Your task to perform on an android device: Show me popular games on the Play Store Image 0: 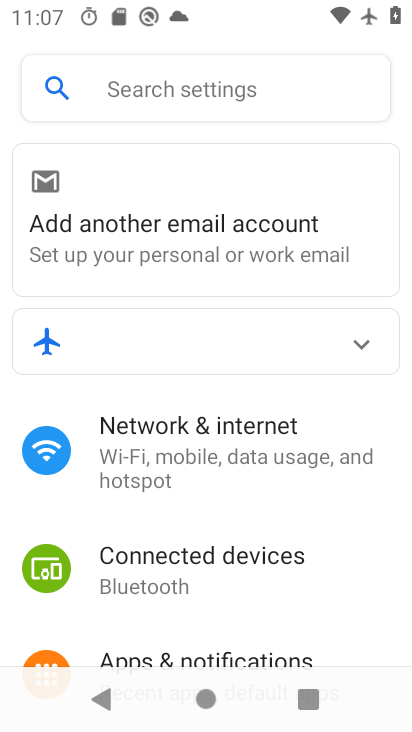
Step 0: press home button
Your task to perform on an android device: Show me popular games on the Play Store Image 1: 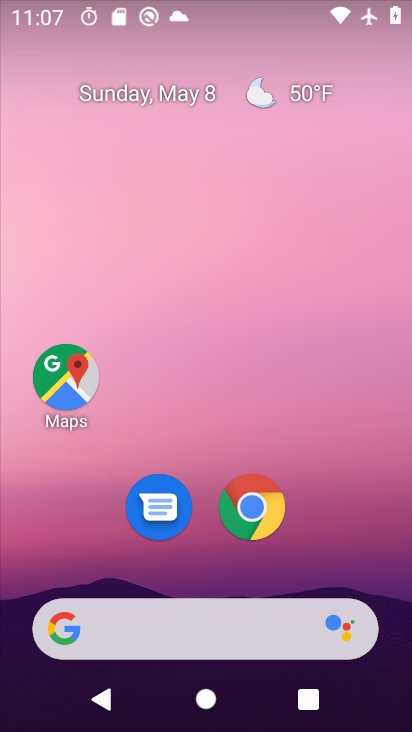
Step 1: drag from (229, 724) to (233, 196)
Your task to perform on an android device: Show me popular games on the Play Store Image 2: 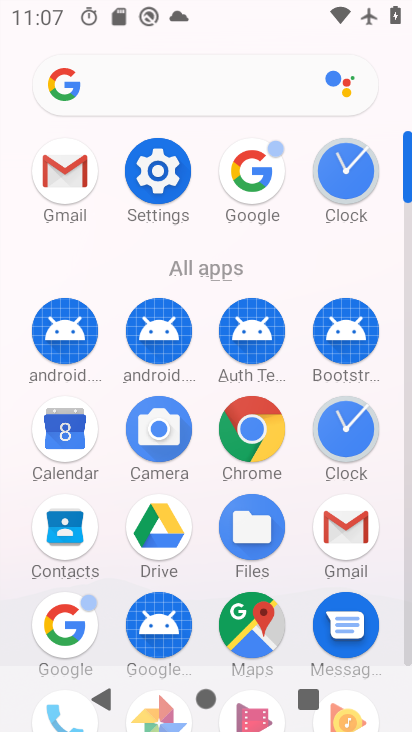
Step 2: drag from (198, 605) to (200, 213)
Your task to perform on an android device: Show me popular games on the Play Store Image 3: 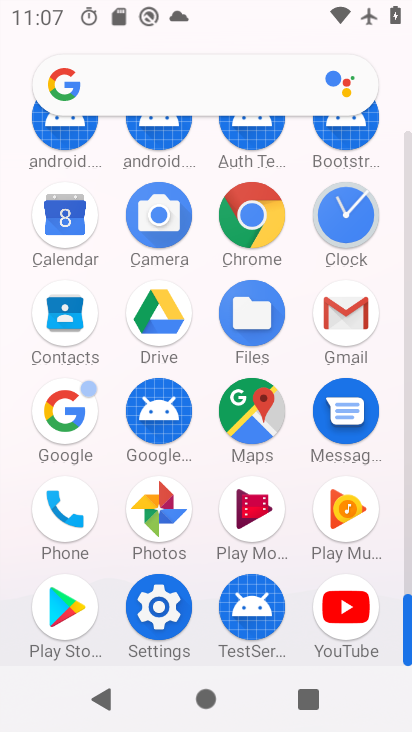
Step 3: click (61, 610)
Your task to perform on an android device: Show me popular games on the Play Store Image 4: 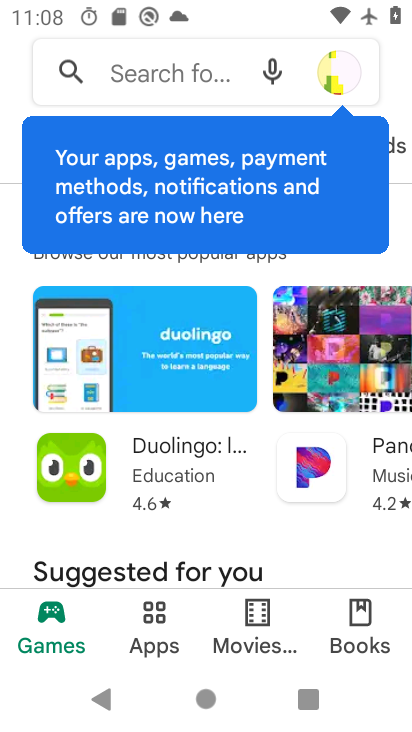
Step 4: drag from (232, 570) to (239, 241)
Your task to perform on an android device: Show me popular games on the Play Store Image 5: 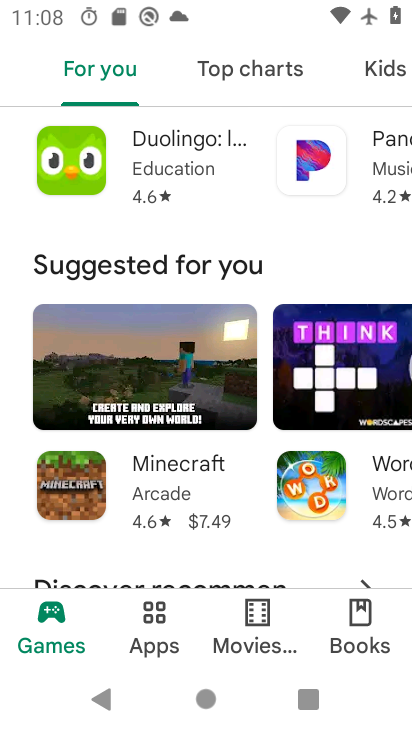
Step 5: drag from (234, 568) to (223, 356)
Your task to perform on an android device: Show me popular games on the Play Store Image 6: 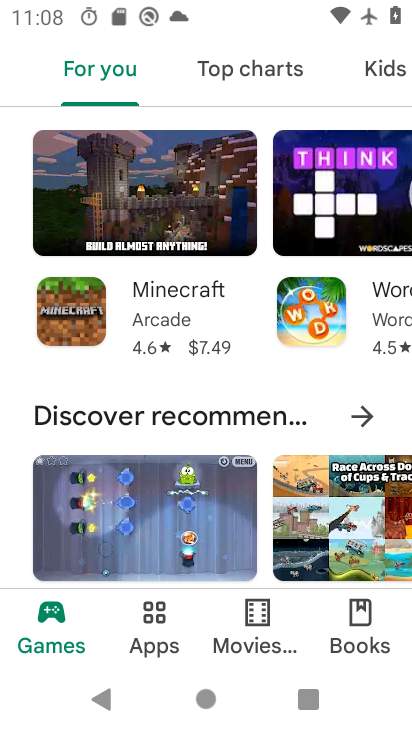
Step 6: drag from (226, 536) to (216, 227)
Your task to perform on an android device: Show me popular games on the Play Store Image 7: 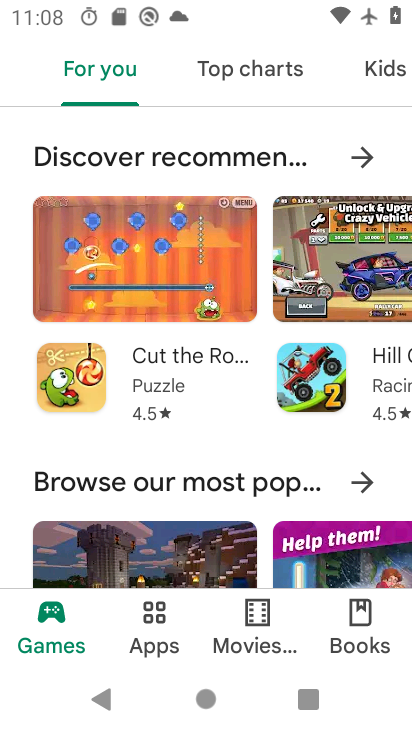
Step 7: drag from (215, 501) to (219, 363)
Your task to perform on an android device: Show me popular games on the Play Store Image 8: 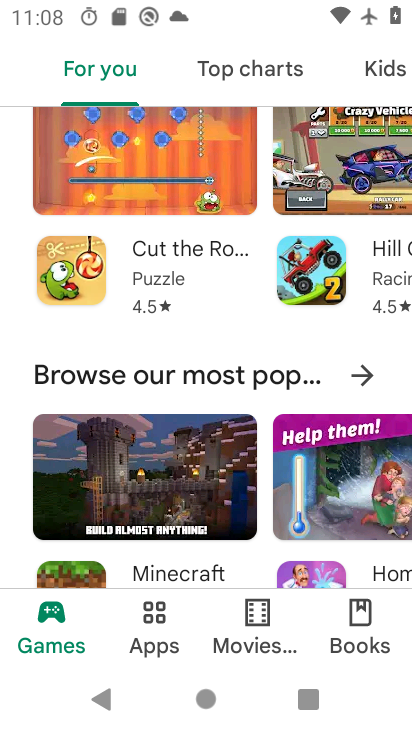
Step 8: click (230, 377)
Your task to perform on an android device: Show me popular games on the Play Store Image 9: 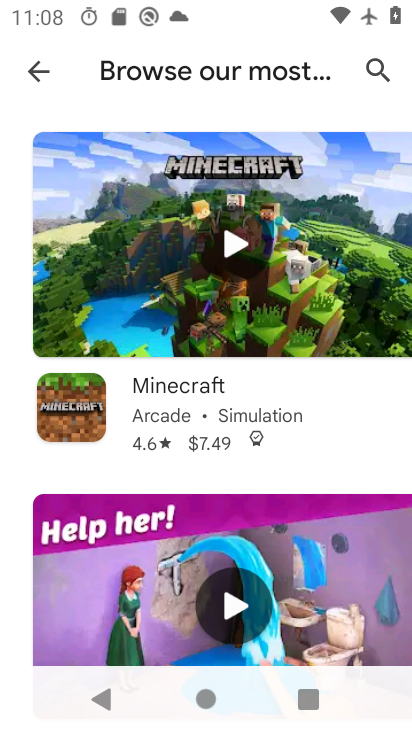
Step 9: task complete